Your task to perform on an android device: Open the Play Movies app and select the watchlist tab. Image 0: 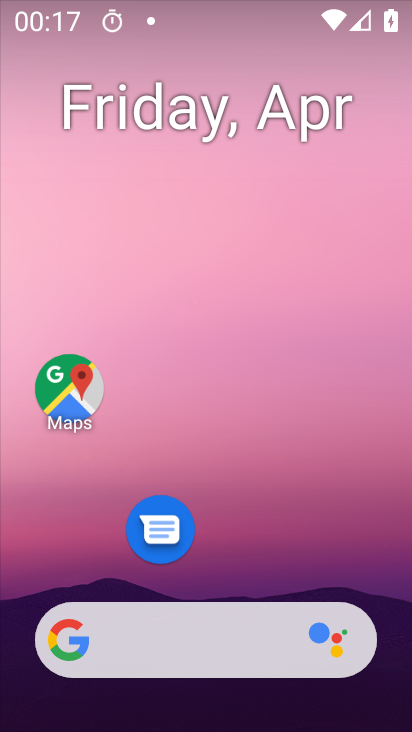
Step 0: drag from (223, 546) to (271, 41)
Your task to perform on an android device: Open the Play Movies app and select the watchlist tab. Image 1: 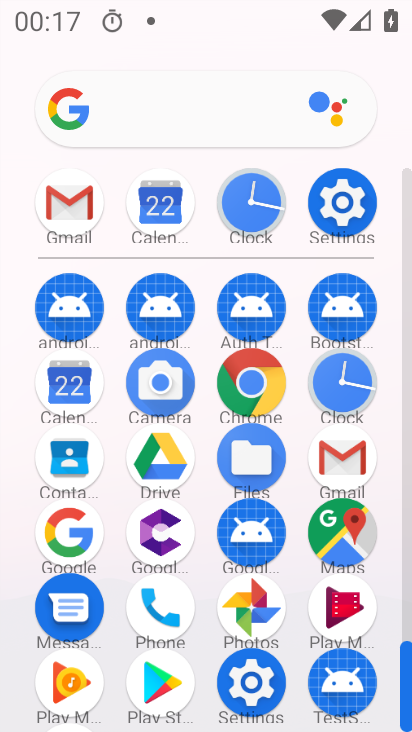
Step 1: click (336, 609)
Your task to perform on an android device: Open the Play Movies app and select the watchlist tab. Image 2: 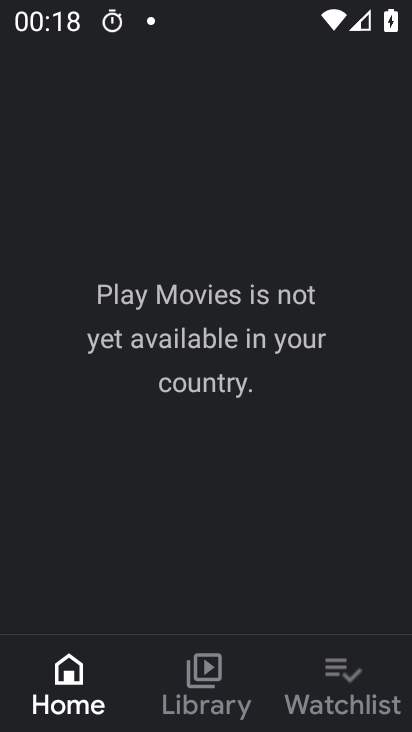
Step 2: click (326, 688)
Your task to perform on an android device: Open the Play Movies app and select the watchlist tab. Image 3: 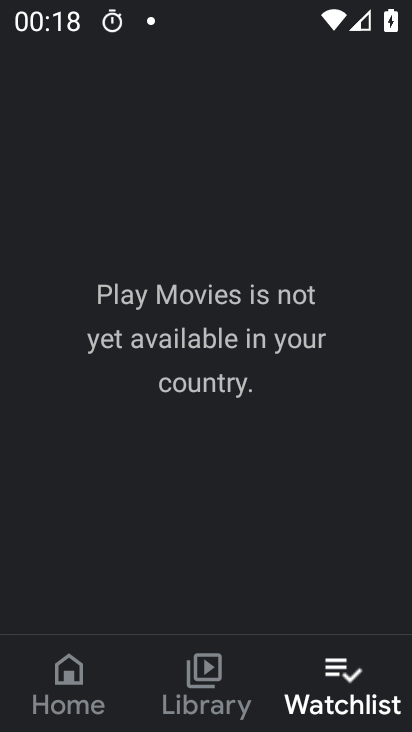
Step 3: task complete